Your task to perform on an android device: Search for Mexican restaurants on Maps Image 0: 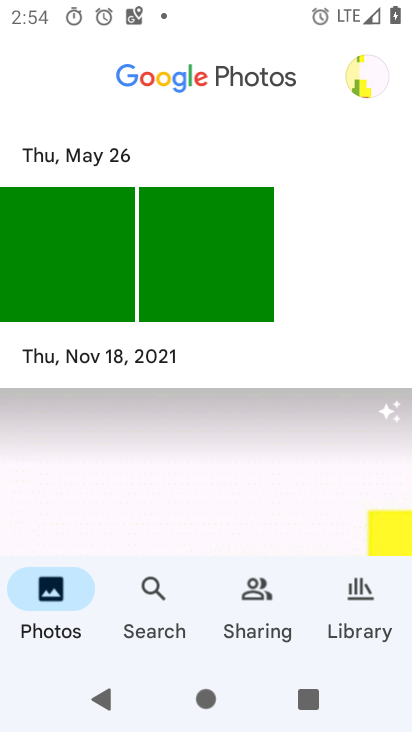
Step 0: press home button
Your task to perform on an android device: Search for Mexican restaurants on Maps Image 1: 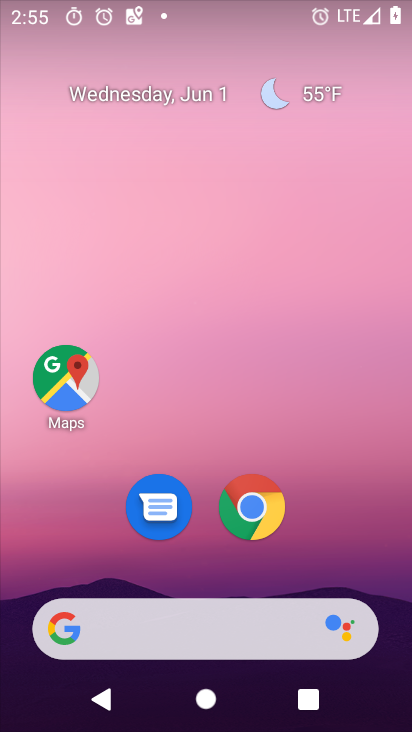
Step 1: click (67, 380)
Your task to perform on an android device: Search for Mexican restaurants on Maps Image 2: 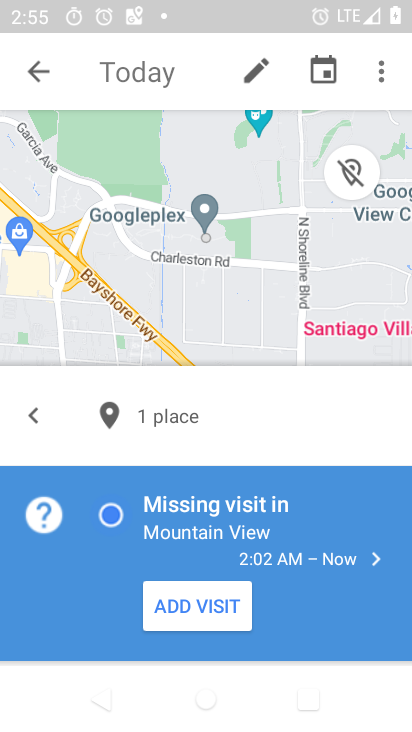
Step 2: click (31, 72)
Your task to perform on an android device: Search for Mexican restaurants on Maps Image 3: 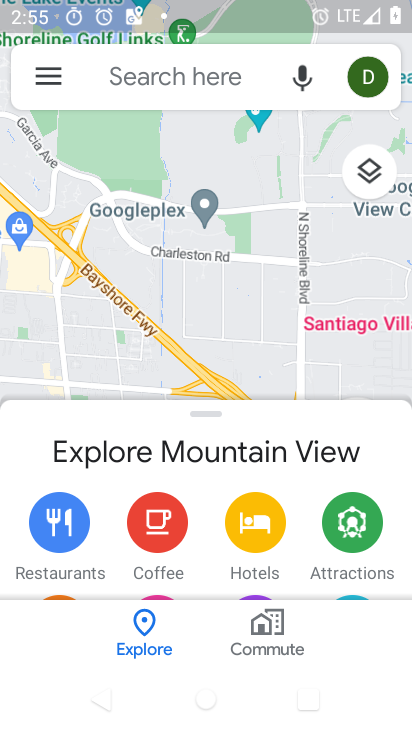
Step 3: click (110, 79)
Your task to perform on an android device: Search for Mexican restaurants on Maps Image 4: 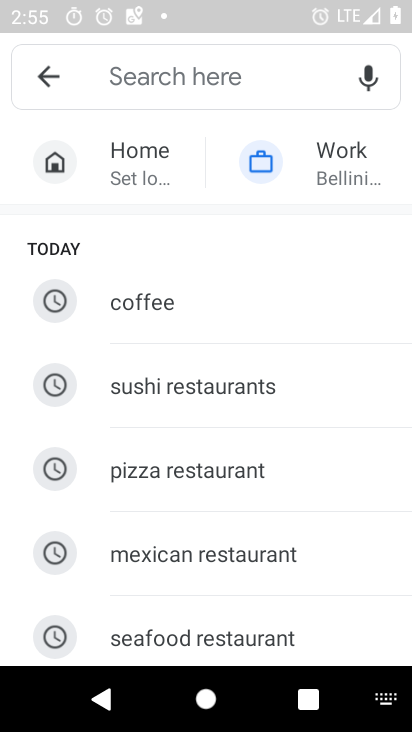
Step 4: type "mexican restaurants"
Your task to perform on an android device: Search for Mexican restaurants on Maps Image 5: 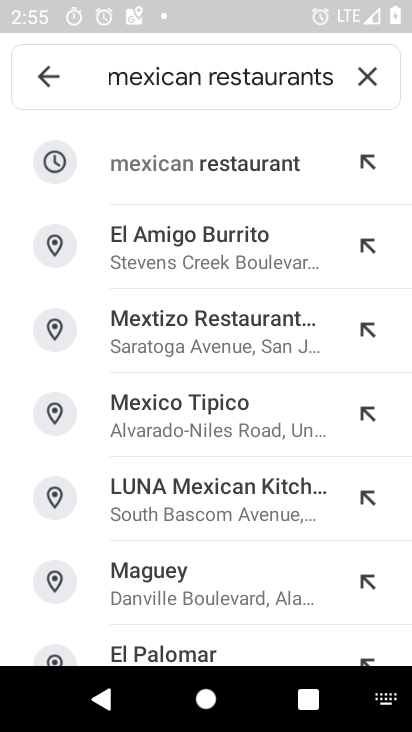
Step 5: click (195, 168)
Your task to perform on an android device: Search for Mexican restaurants on Maps Image 6: 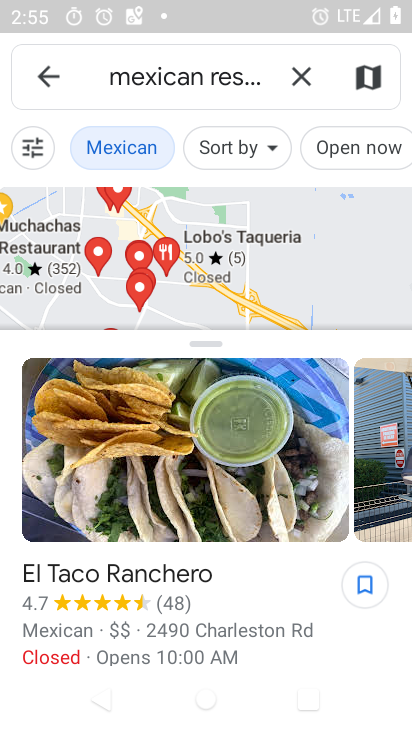
Step 6: task complete